Your task to perform on an android device: toggle data saver in the chrome app Image 0: 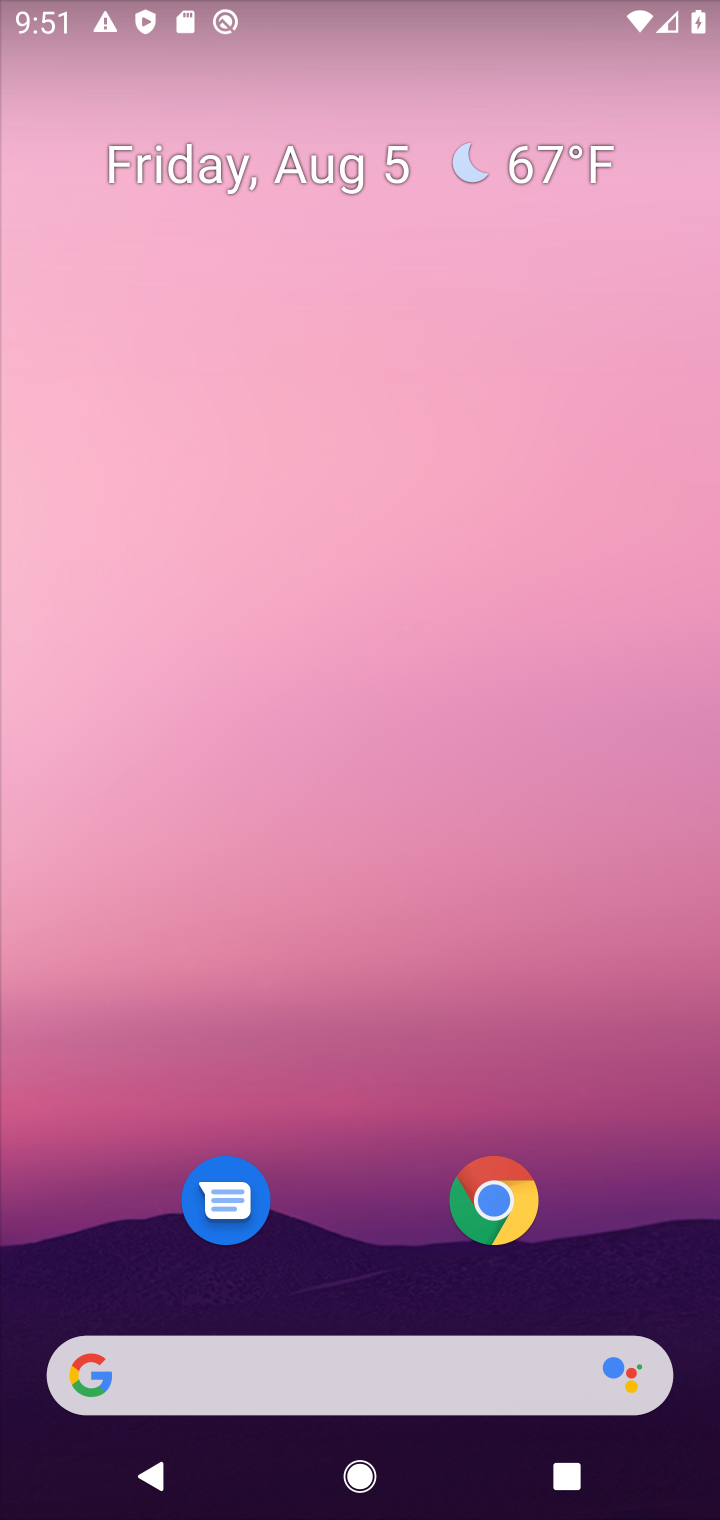
Step 0: click (530, 1215)
Your task to perform on an android device: toggle data saver in the chrome app Image 1: 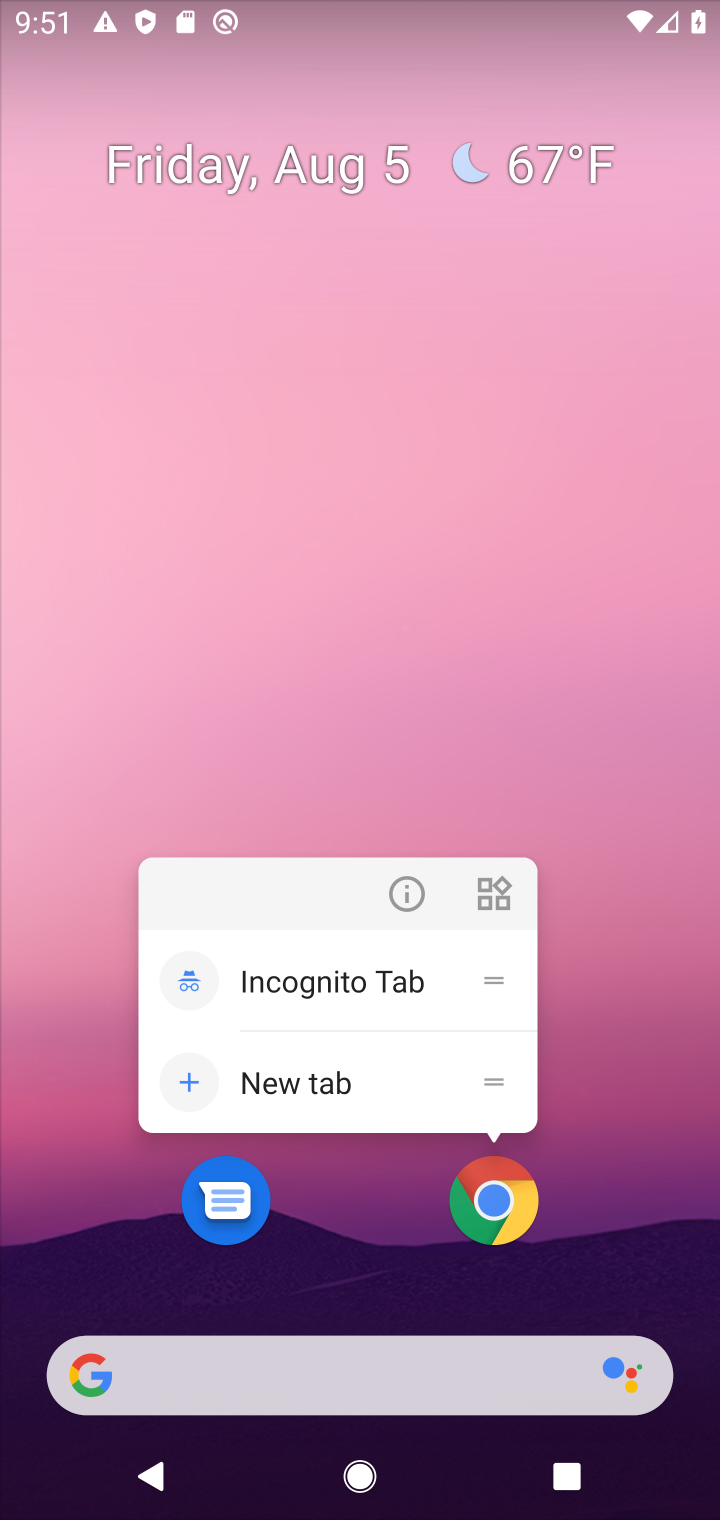
Step 1: click (517, 1227)
Your task to perform on an android device: toggle data saver in the chrome app Image 2: 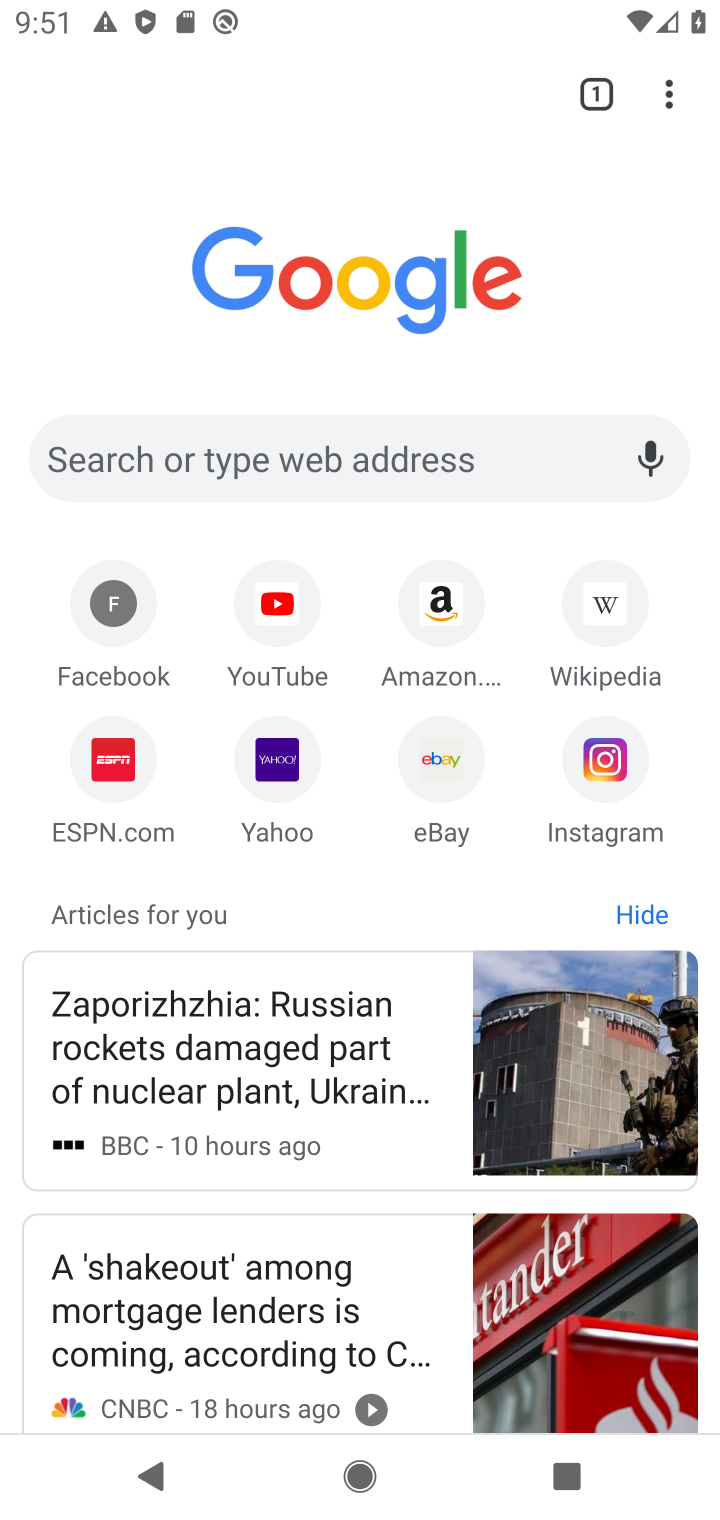
Step 2: drag from (676, 92) to (388, 792)
Your task to perform on an android device: toggle data saver in the chrome app Image 3: 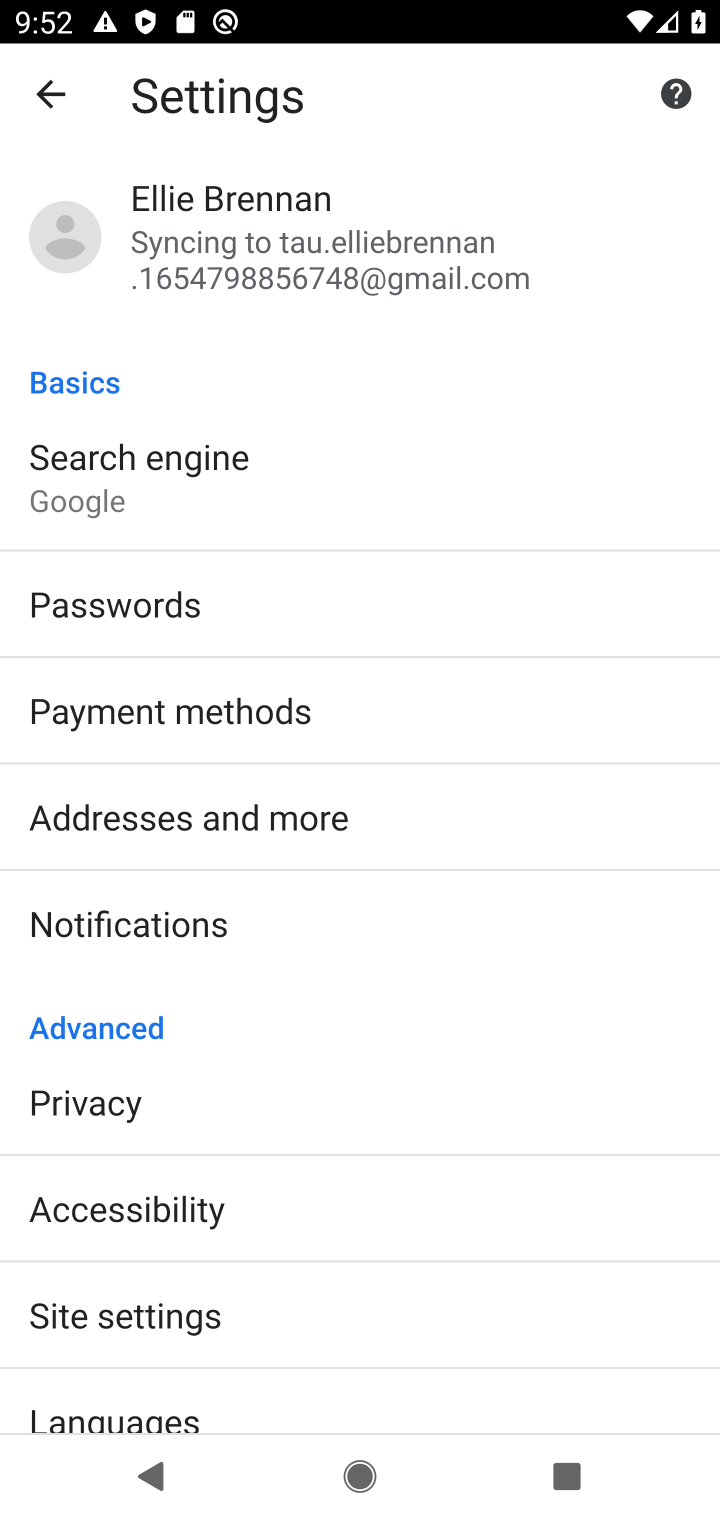
Step 3: drag from (276, 1245) to (558, 96)
Your task to perform on an android device: toggle data saver in the chrome app Image 4: 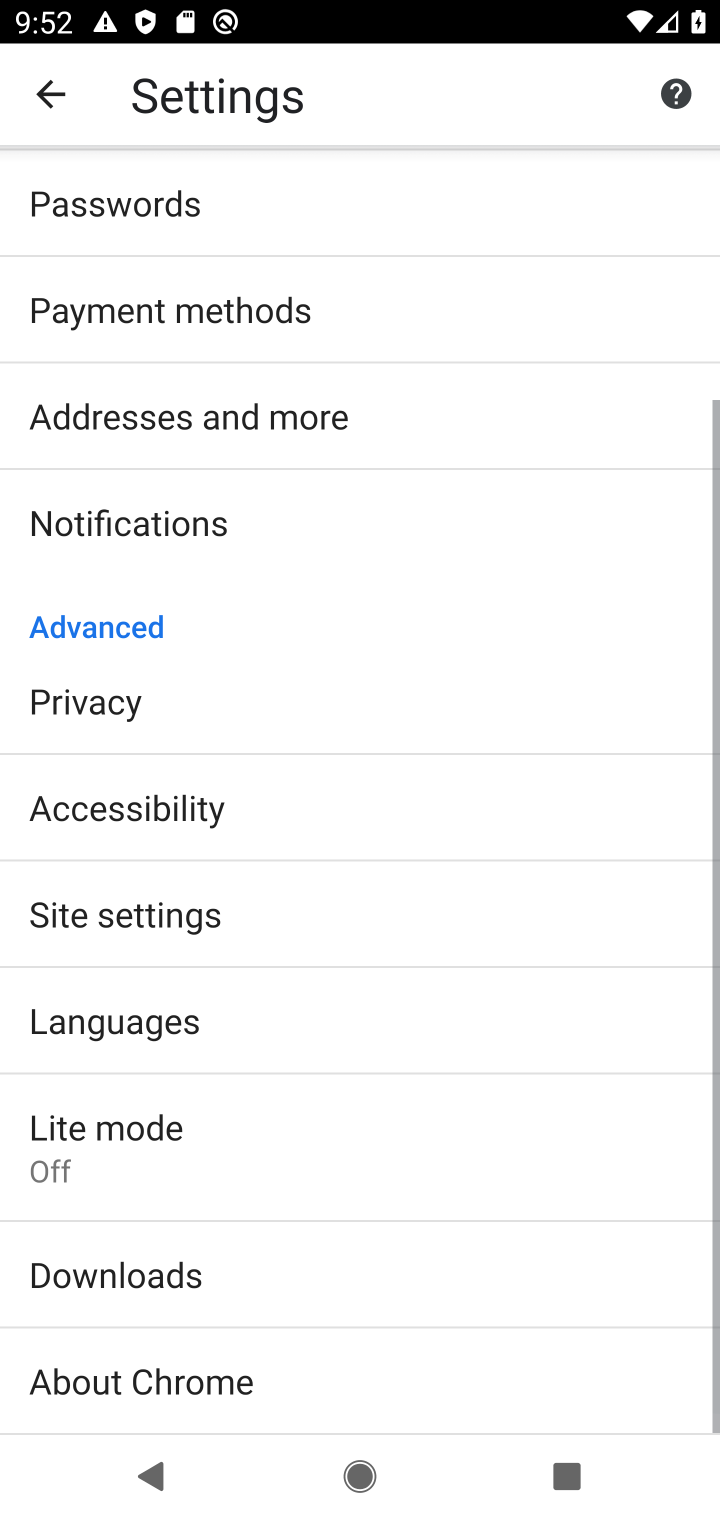
Step 4: click (188, 1144)
Your task to perform on an android device: toggle data saver in the chrome app Image 5: 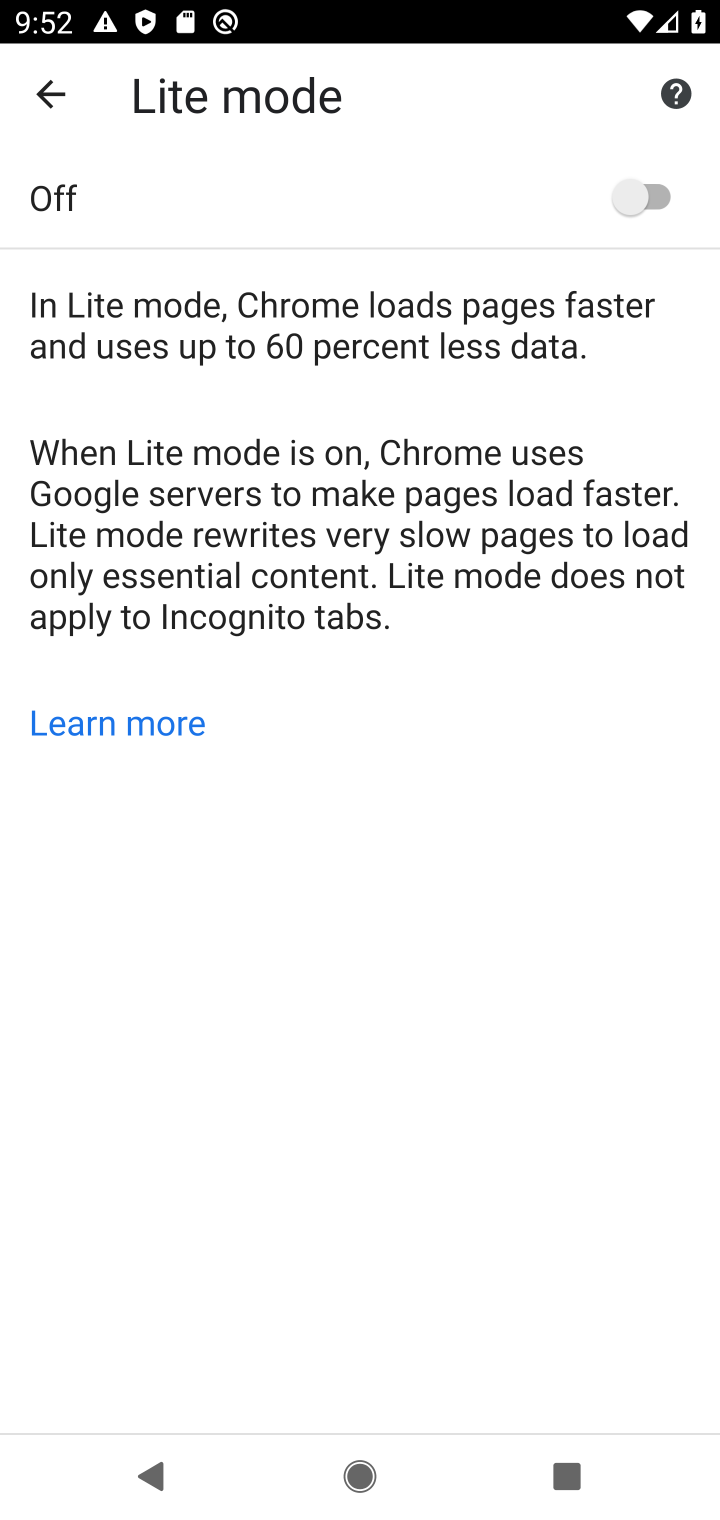
Step 5: click (647, 200)
Your task to perform on an android device: toggle data saver in the chrome app Image 6: 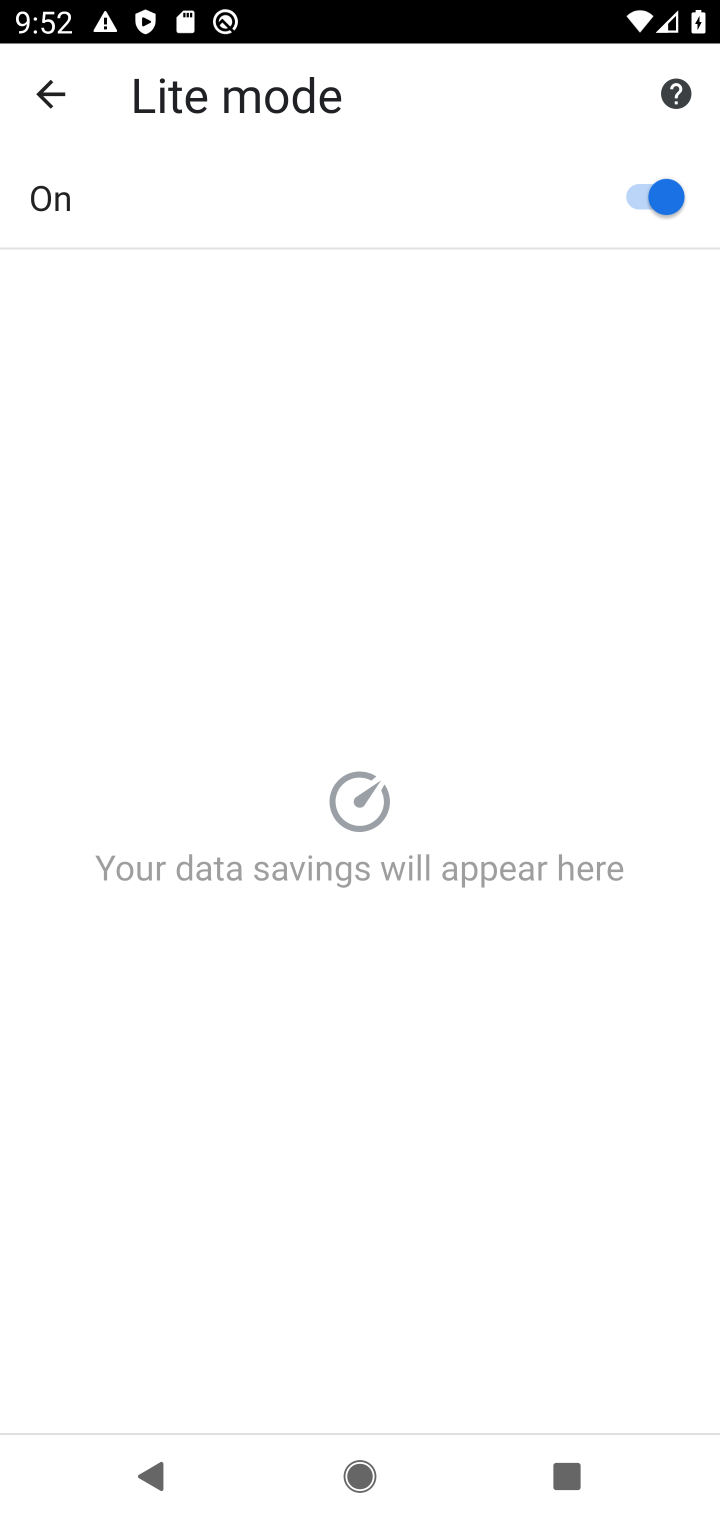
Step 6: task complete